Your task to perform on an android device: Open Chrome and go to settings Image 0: 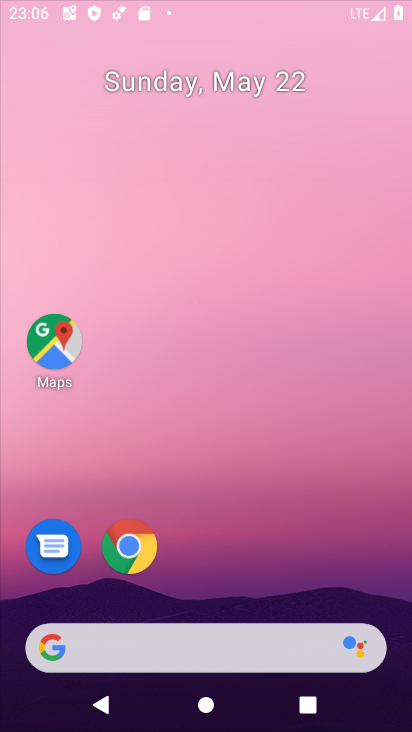
Step 0: click (328, 197)
Your task to perform on an android device: Open Chrome and go to settings Image 1: 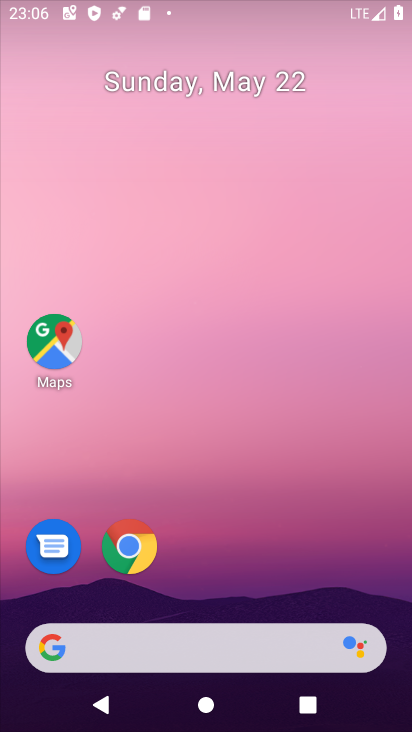
Step 1: drag from (219, 582) to (282, 0)
Your task to perform on an android device: Open Chrome and go to settings Image 2: 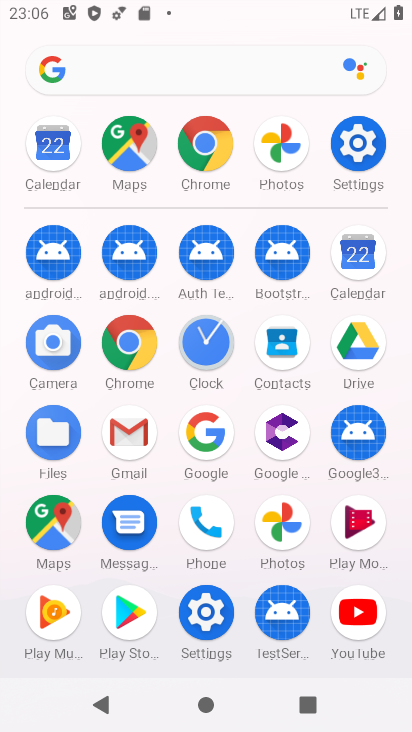
Step 2: drag from (163, 628) to (204, 199)
Your task to perform on an android device: Open Chrome and go to settings Image 3: 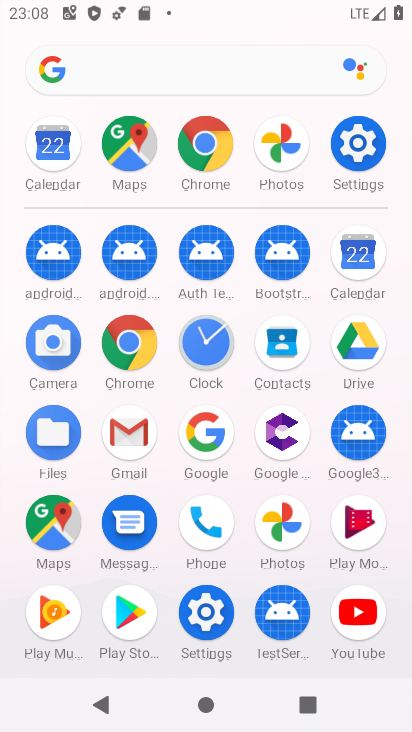
Step 3: drag from (165, 578) to (217, 140)
Your task to perform on an android device: Open Chrome and go to settings Image 4: 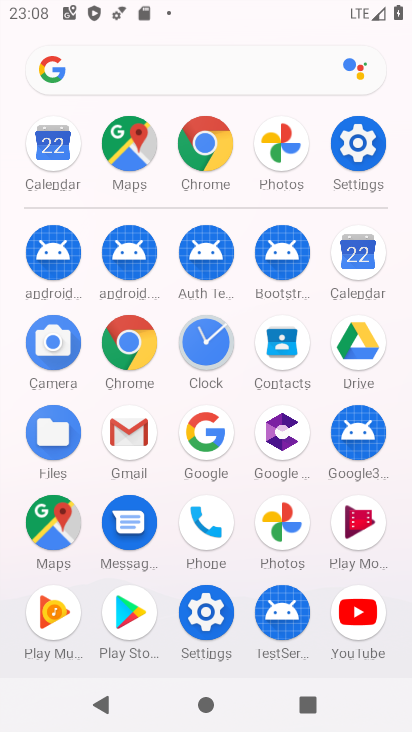
Step 4: click (203, 142)
Your task to perform on an android device: Open Chrome and go to settings Image 5: 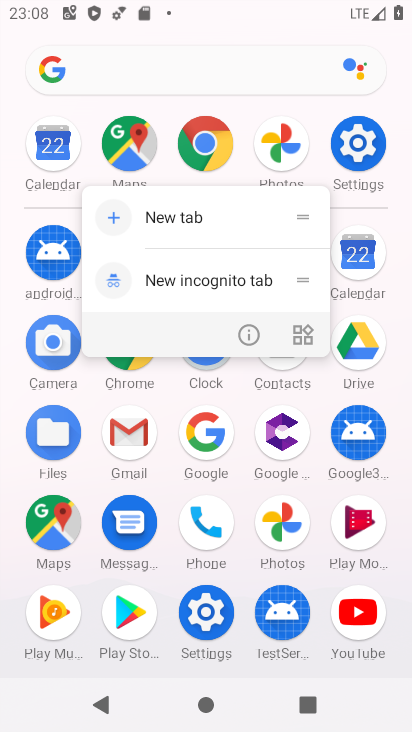
Step 5: click (249, 331)
Your task to perform on an android device: Open Chrome and go to settings Image 6: 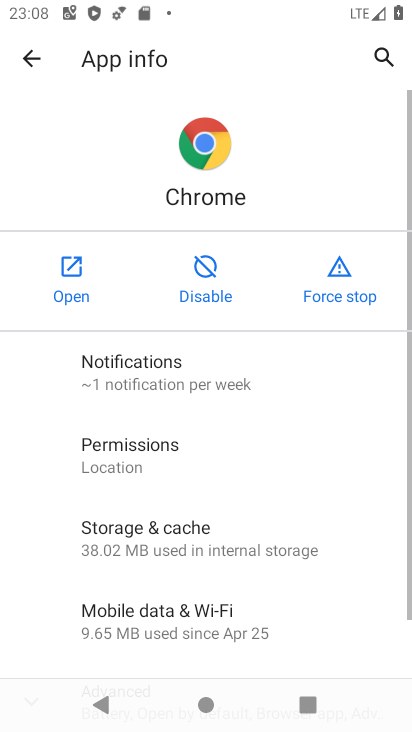
Step 6: click (76, 284)
Your task to perform on an android device: Open Chrome and go to settings Image 7: 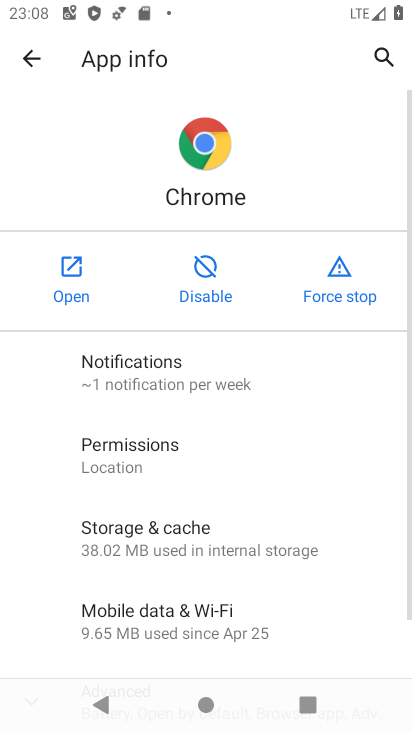
Step 7: click (76, 284)
Your task to perform on an android device: Open Chrome and go to settings Image 8: 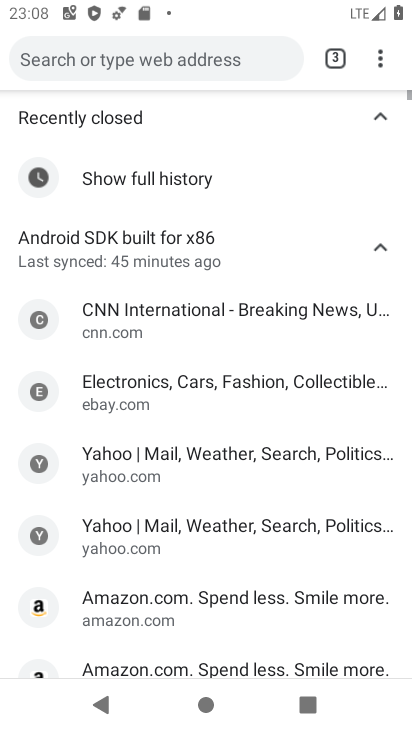
Step 8: click (372, 67)
Your task to perform on an android device: Open Chrome and go to settings Image 9: 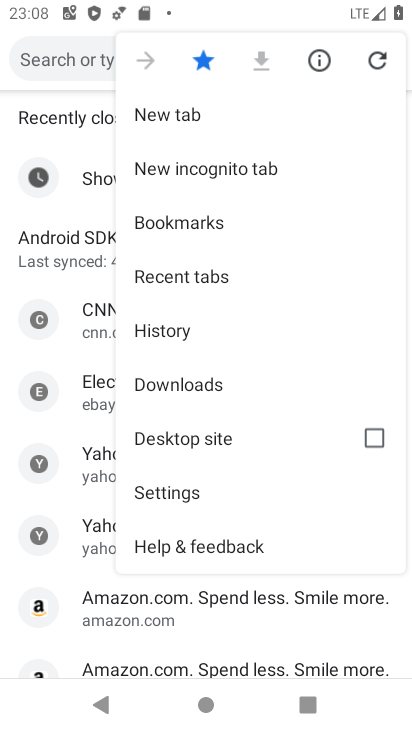
Step 9: drag from (260, 510) to (286, 104)
Your task to perform on an android device: Open Chrome and go to settings Image 10: 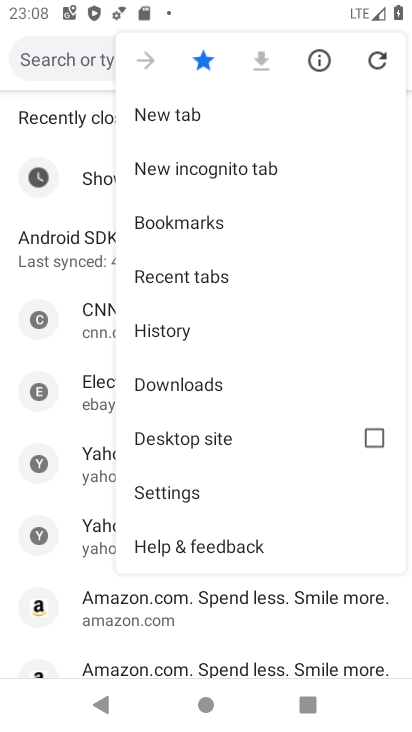
Step 10: drag from (228, 488) to (286, 120)
Your task to perform on an android device: Open Chrome and go to settings Image 11: 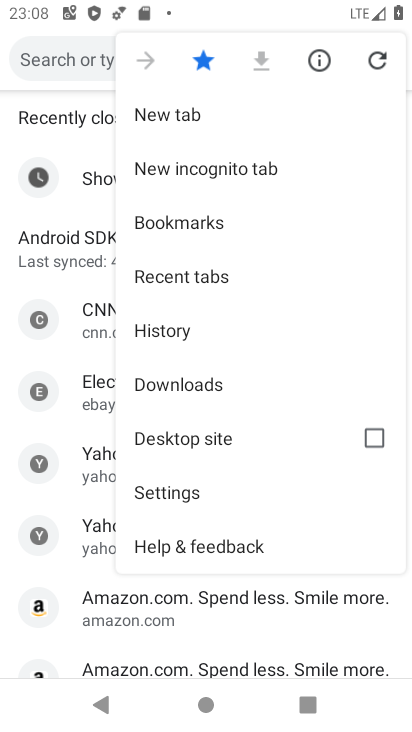
Step 11: drag from (254, 495) to (278, 111)
Your task to perform on an android device: Open Chrome and go to settings Image 12: 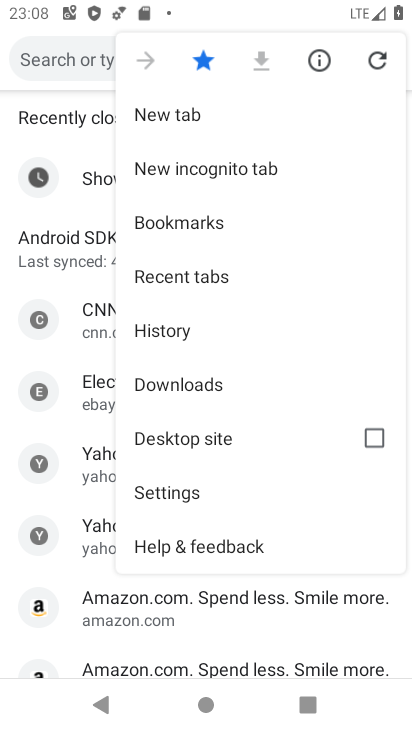
Step 12: click (209, 502)
Your task to perform on an android device: Open Chrome and go to settings Image 13: 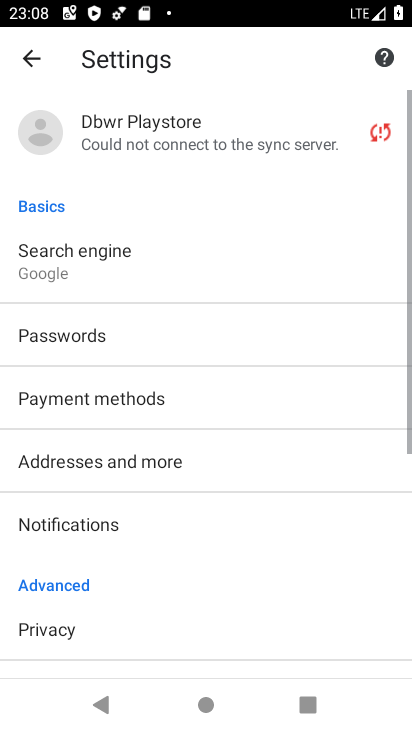
Step 13: task complete